Your task to perform on an android device: see sites visited before in the chrome app Image 0: 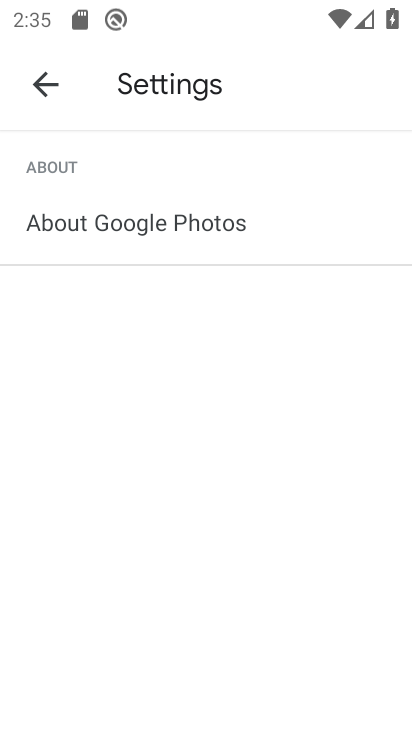
Step 0: press home button
Your task to perform on an android device: see sites visited before in the chrome app Image 1: 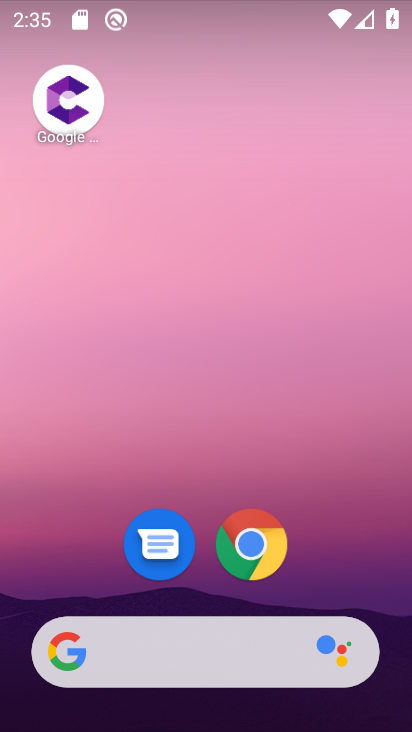
Step 1: click (258, 548)
Your task to perform on an android device: see sites visited before in the chrome app Image 2: 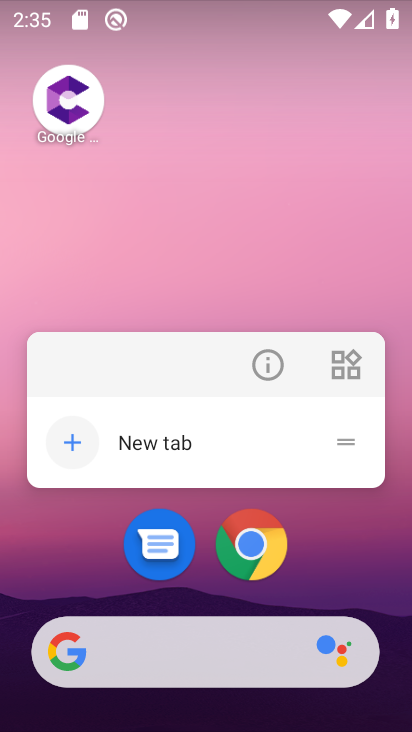
Step 2: click (264, 554)
Your task to perform on an android device: see sites visited before in the chrome app Image 3: 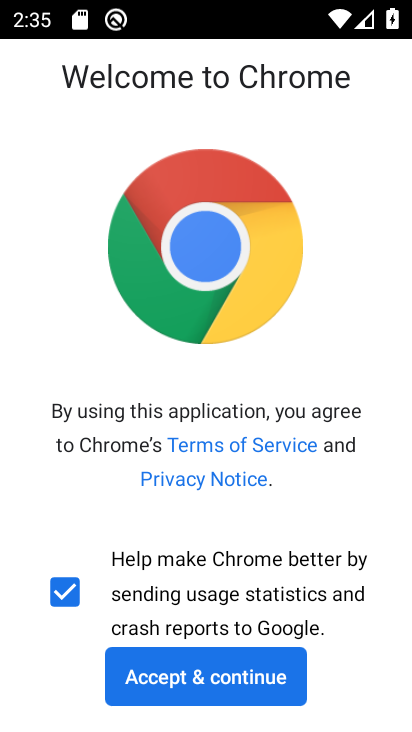
Step 3: click (228, 673)
Your task to perform on an android device: see sites visited before in the chrome app Image 4: 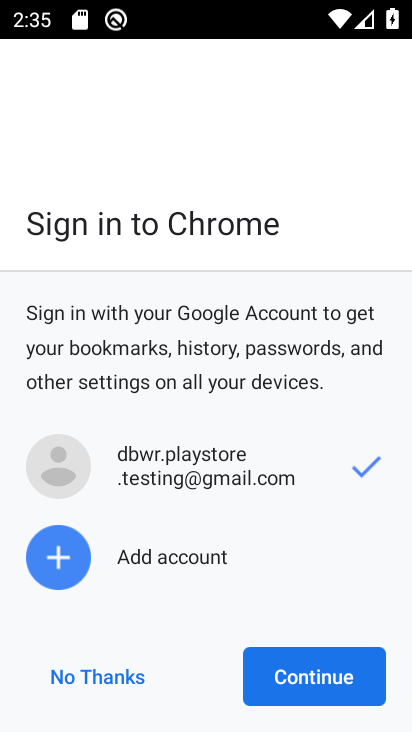
Step 4: click (294, 677)
Your task to perform on an android device: see sites visited before in the chrome app Image 5: 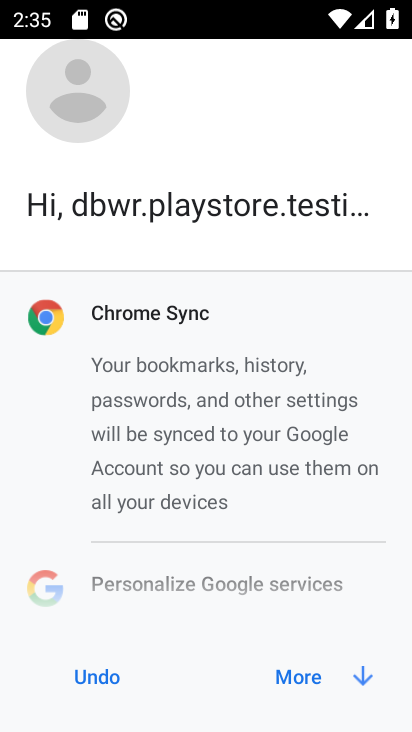
Step 5: click (300, 672)
Your task to perform on an android device: see sites visited before in the chrome app Image 6: 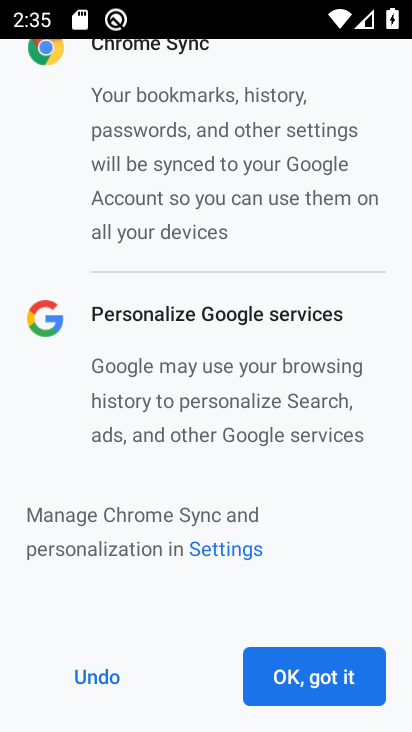
Step 6: click (300, 672)
Your task to perform on an android device: see sites visited before in the chrome app Image 7: 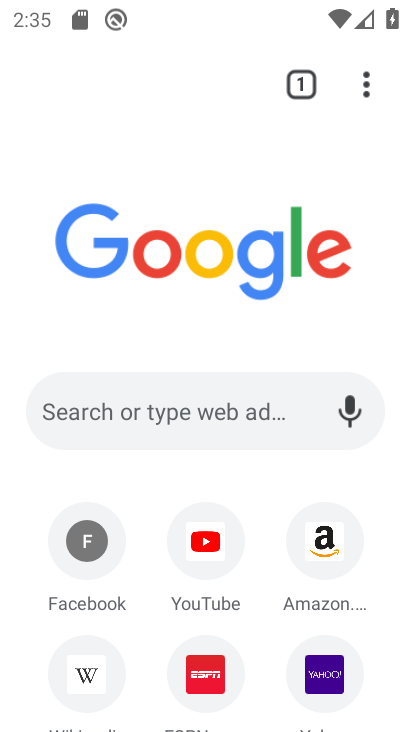
Step 7: click (374, 80)
Your task to perform on an android device: see sites visited before in the chrome app Image 8: 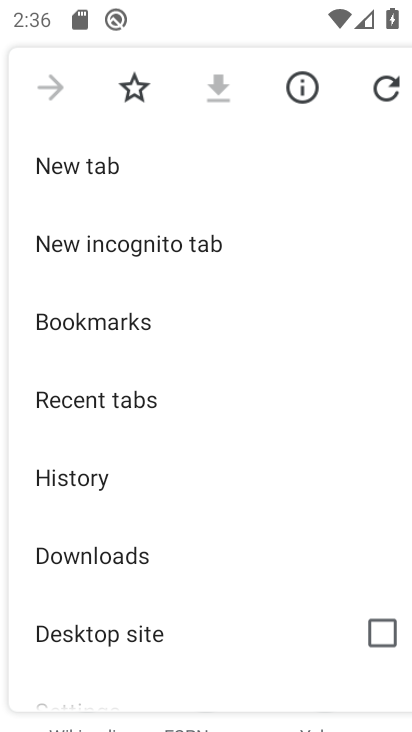
Step 8: click (99, 398)
Your task to perform on an android device: see sites visited before in the chrome app Image 9: 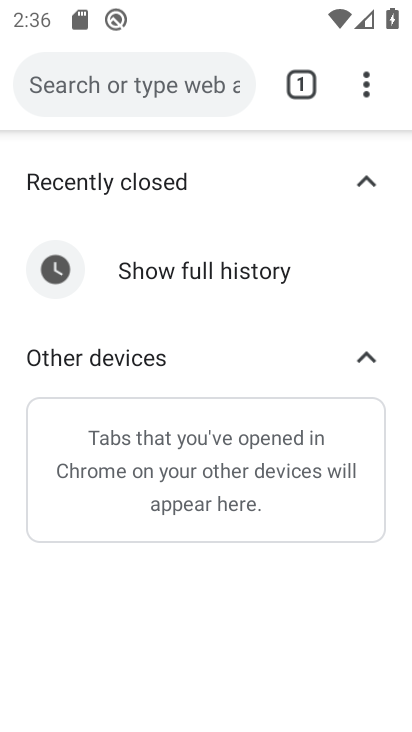
Step 9: task complete